Your task to perform on an android device: turn off picture-in-picture Image 0: 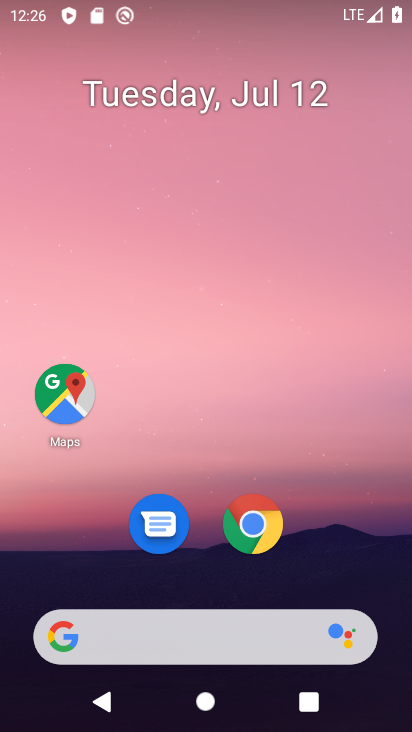
Step 0: click (255, 521)
Your task to perform on an android device: turn off picture-in-picture Image 1: 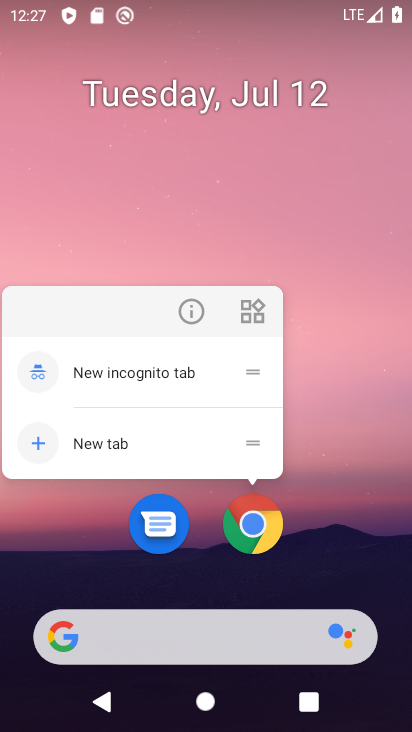
Step 1: click (190, 308)
Your task to perform on an android device: turn off picture-in-picture Image 2: 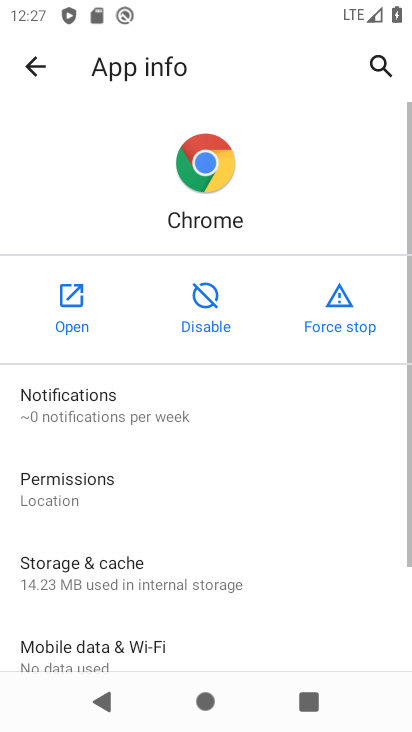
Step 2: drag from (208, 518) to (230, 166)
Your task to perform on an android device: turn off picture-in-picture Image 3: 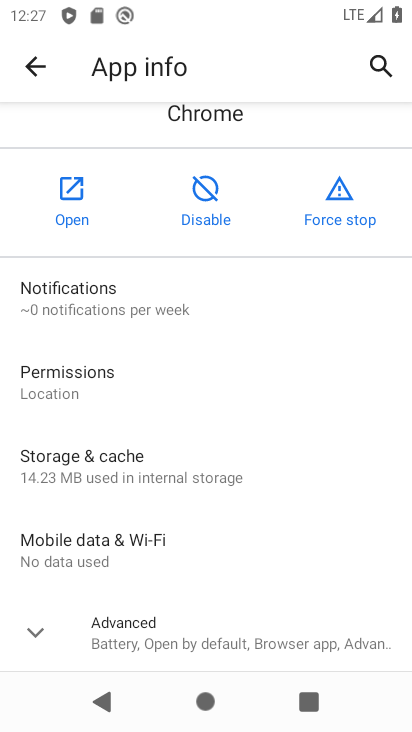
Step 3: click (34, 628)
Your task to perform on an android device: turn off picture-in-picture Image 4: 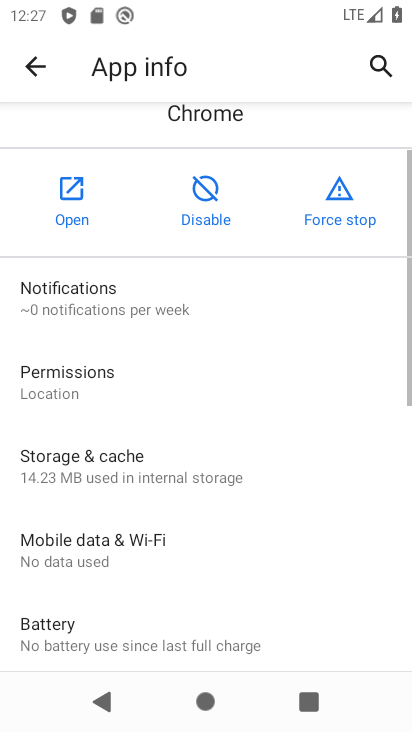
Step 4: drag from (166, 586) to (248, 110)
Your task to perform on an android device: turn off picture-in-picture Image 5: 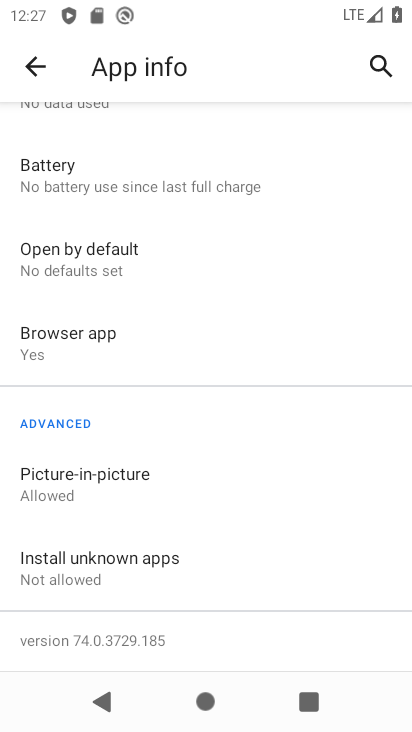
Step 5: click (105, 484)
Your task to perform on an android device: turn off picture-in-picture Image 6: 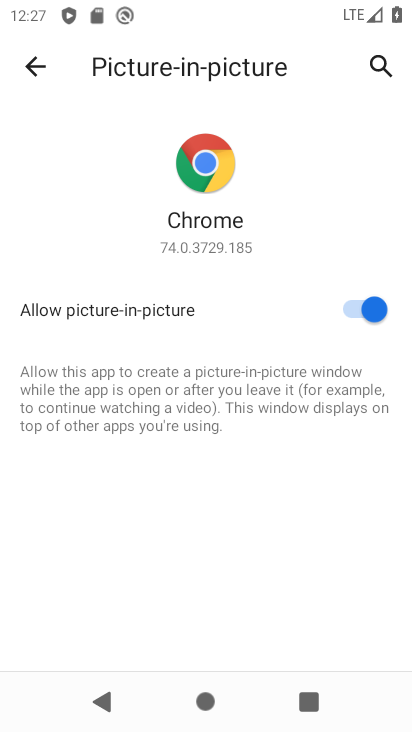
Step 6: click (364, 309)
Your task to perform on an android device: turn off picture-in-picture Image 7: 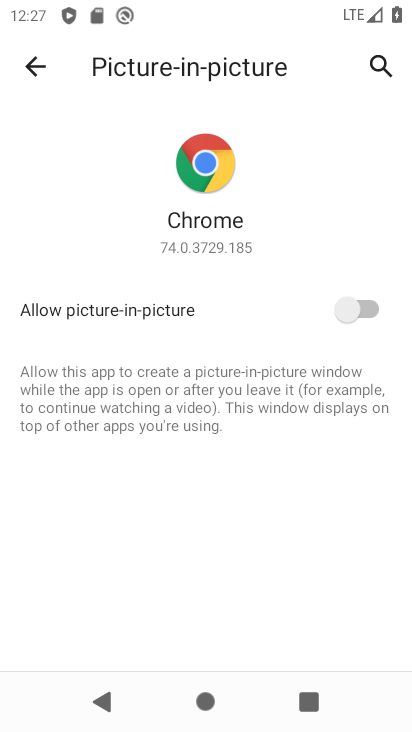
Step 7: task complete